Your task to perform on an android device: refresh tabs in the chrome app Image 0: 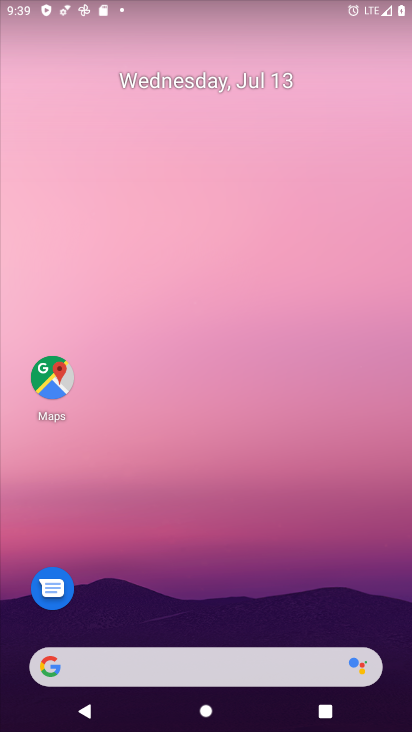
Step 0: drag from (174, 708) to (240, 182)
Your task to perform on an android device: refresh tabs in the chrome app Image 1: 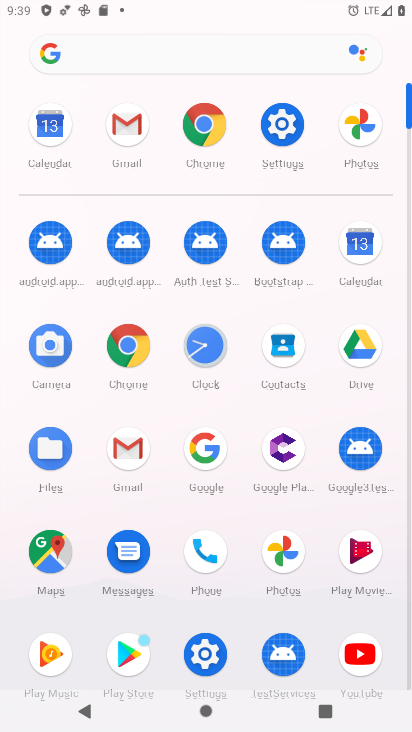
Step 1: click (198, 135)
Your task to perform on an android device: refresh tabs in the chrome app Image 2: 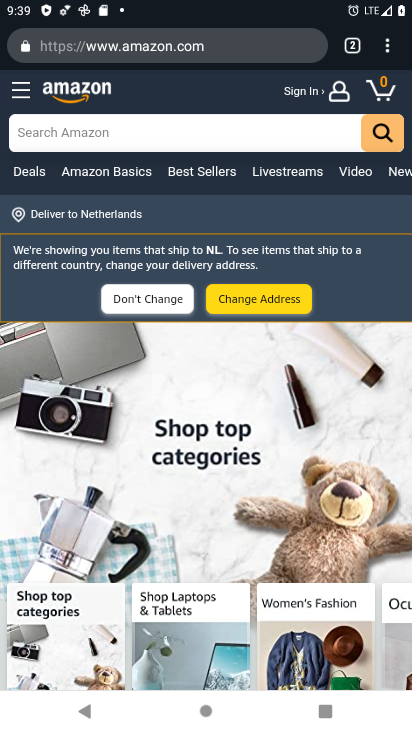
Step 2: click (385, 49)
Your task to perform on an android device: refresh tabs in the chrome app Image 3: 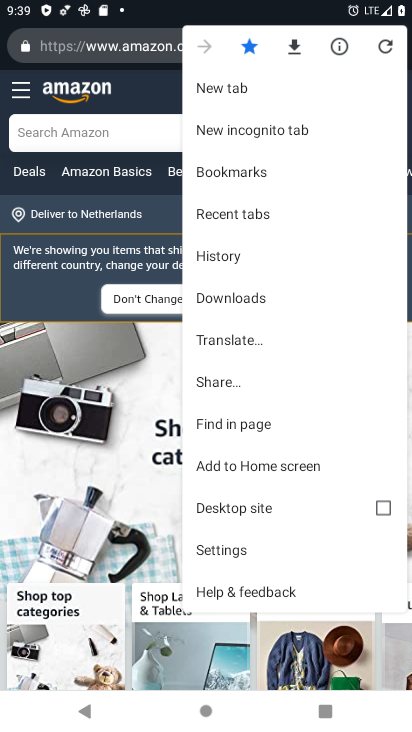
Step 3: click (385, 49)
Your task to perform on an android device: refresh tabs in the chrome app Image 4: 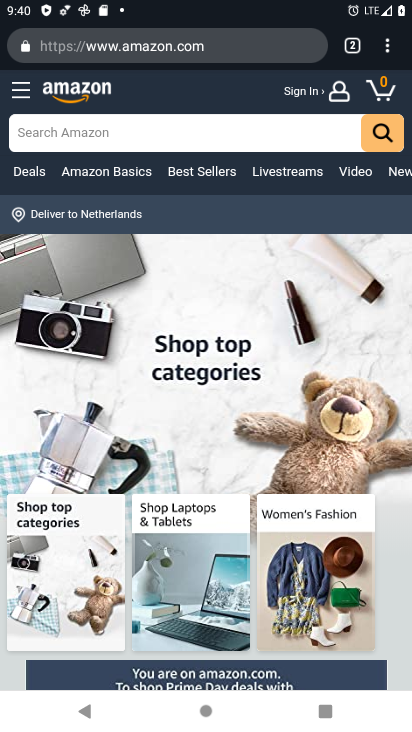
Step 4: task complete